Your task to perform on an android device: turn on javascript in the chrome app Image 0: 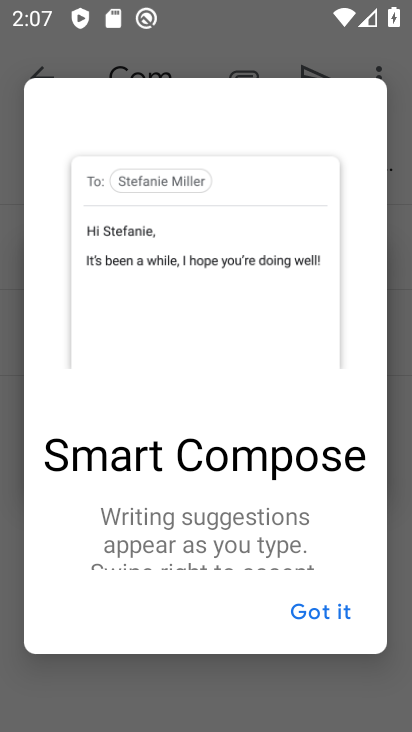
Step 0: press home button
Your task to perform on an android device: turn on javascript in the chrome app Image 1: 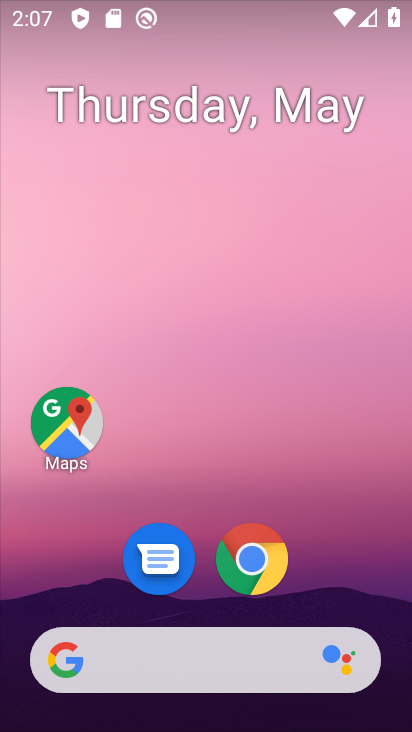
Step 1: click (221, 576)
Your task to perform on an android device: turn on javascript in the chrome app Image 2: 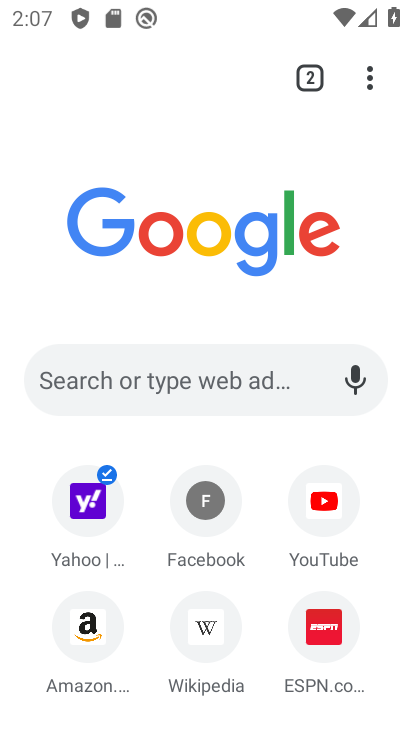
Step 2: click (370, 87)
Your task to perform on an android device: turn on javascript in the chrome app Image 3: 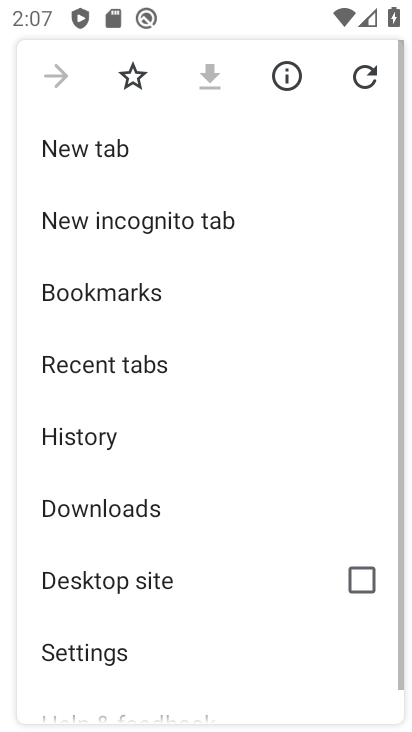
Step 3: drag from (242, 609) to (272, 280)
Your task to perform on an android device: turn on javascript in the chrome app Image 4: 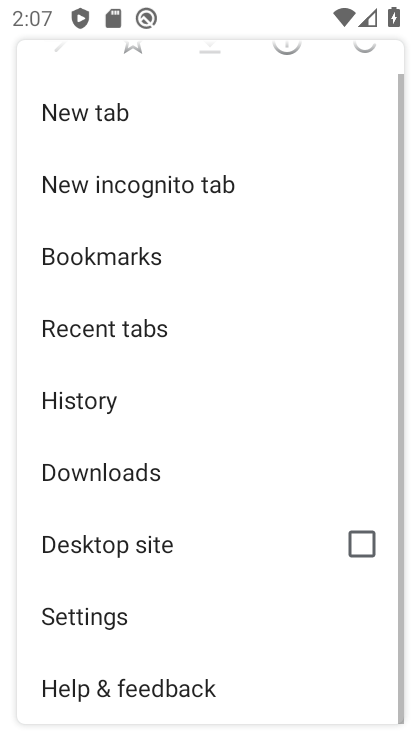
Step 4: click (126, 607)
Your task to perform on an android device: turn on javascript in the chrome app Image 5: 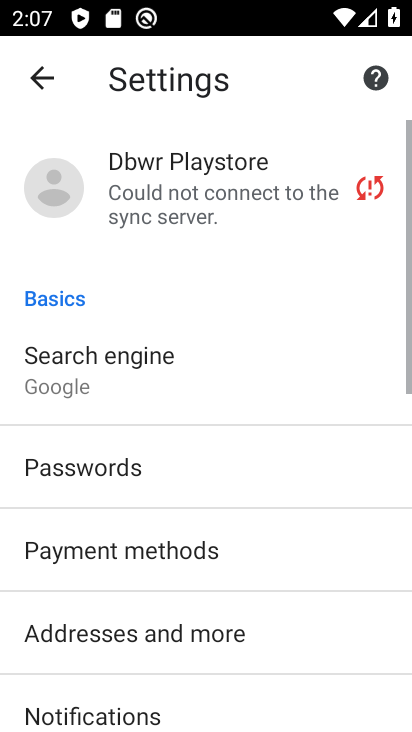
Step 5: drag from (195, 554) to (227, 239)
Your task to perform on an android device: turn on javascript in the chrome app Image 6: 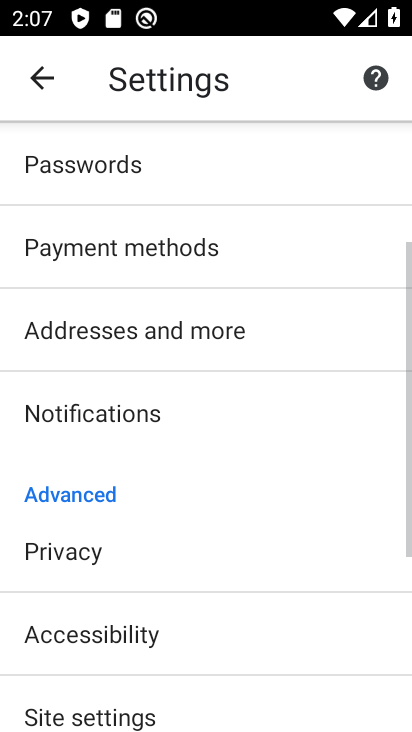
Step 6: drag from (172, 600) to (218, 320)
Your task to perform on an android device: turn on javascript in the chrome app Image 7: 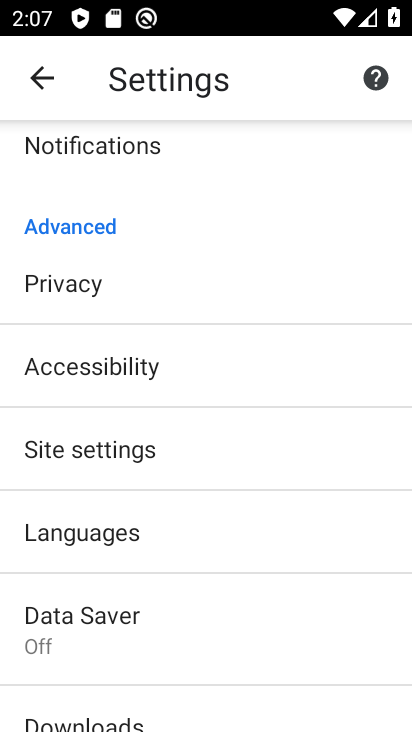
Step 7: drag from (113, 611) to (153, 395)
Your task to perform on an android device: turn on javascript in the chrome app Image 8: 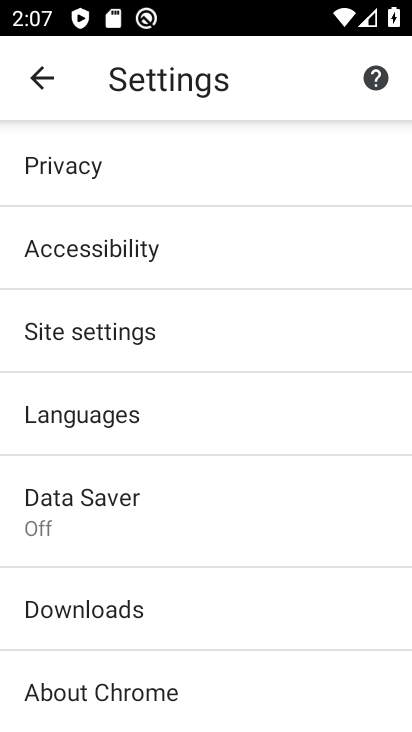
Step 8: click (185, 354)
Your task to perform on an android device: turn on javascript in the chrome app Image 9: 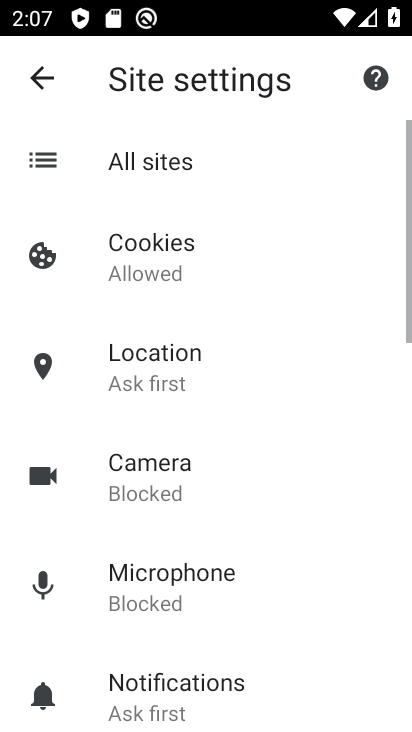
Step 9: click (227, 325)
Your task to perform on an android device: turn on javascript in the chrome app Image 10: 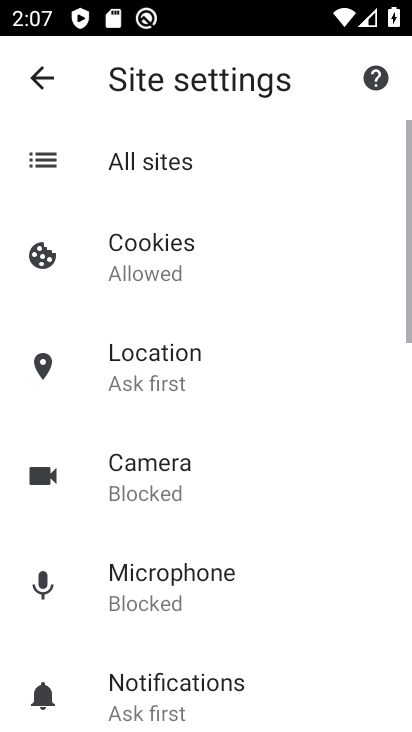
Step 10: drag from (195, 572) to (209, 318)
Your task to perform on an android device: turn on javascript in the chrome app Image 11: 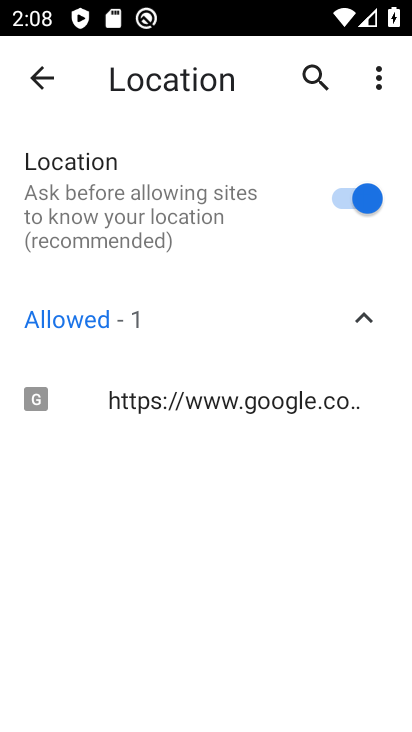
Step 11: click (33, 71)
Your task to perform on an android device: turn on javascript in the chrome app Image 12: 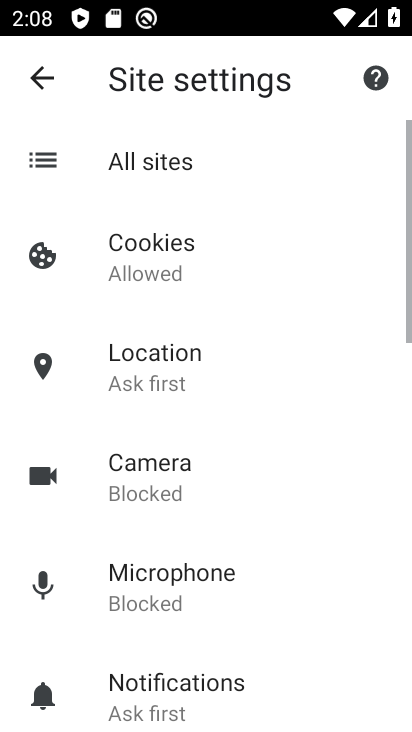
Step 12: drag from (196, 638) to (241, 326)
Your task to perform on an android device: turn on javascript in the chrome app Image 13: 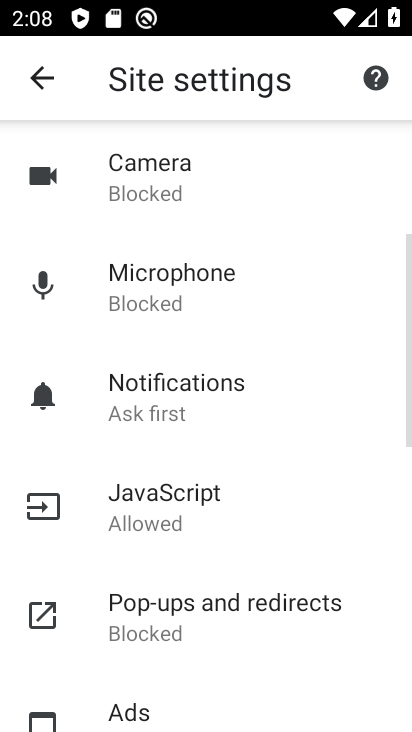
Step 13: click (208, 511)
Your task to perform on an android device: turn on javascript in the chrome app Image 14: 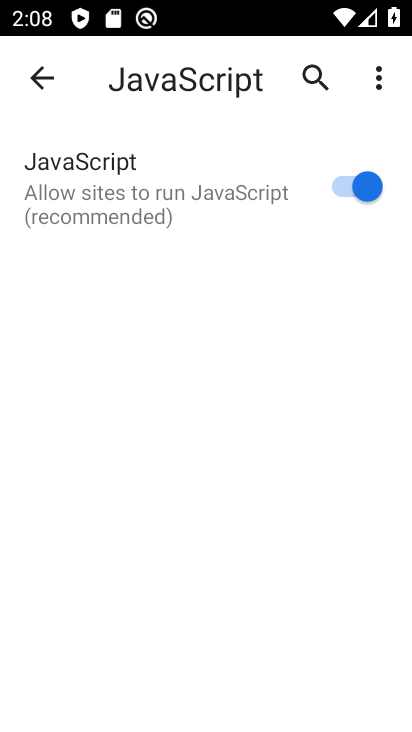
Step 14: task complete